Your task to perform on an android device: check google app version Image 0: 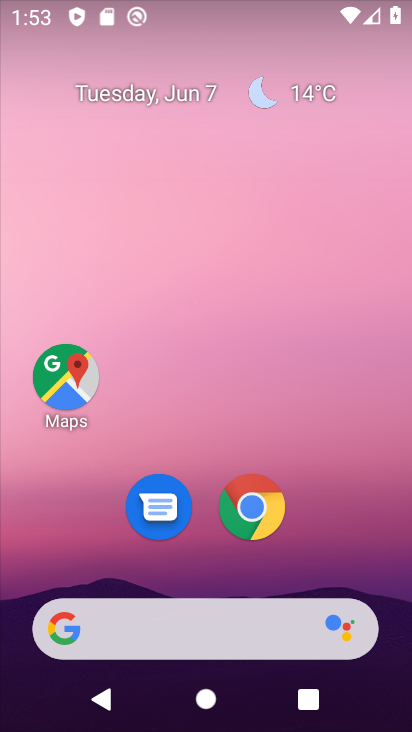
Step 0: drag from (327, 541) to (325, 101)
Your task to perform on an android device: check google app version Image 1: 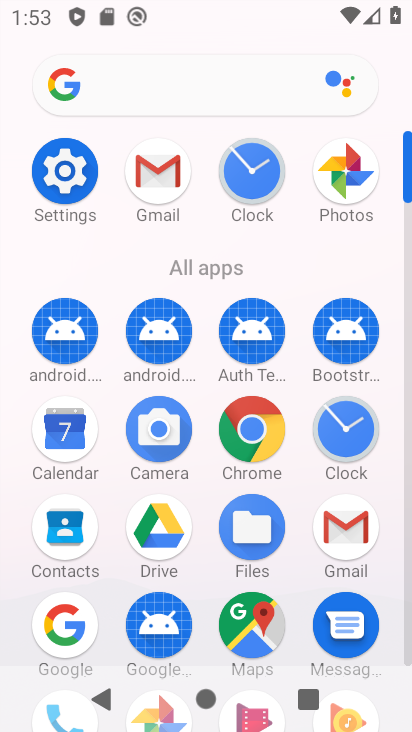
Step 1: drag from (297, 576) to (314, 104)
Your task to perform on an android device: check google app version Image 2: 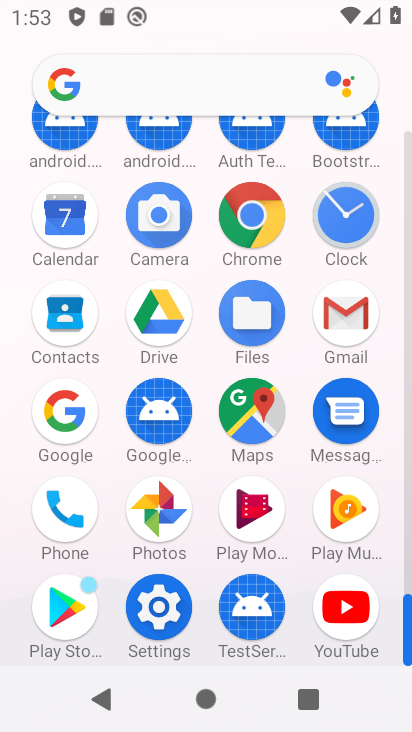
Step 2: click (66, 410)
Your task to perform on an android device: check google app version Image 3: 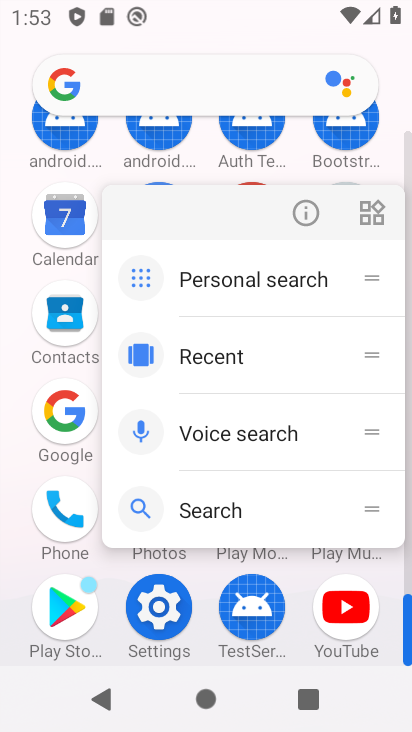
Step 3: click (300, 220)
Your task to perform on an android device: check google app version Image 4: 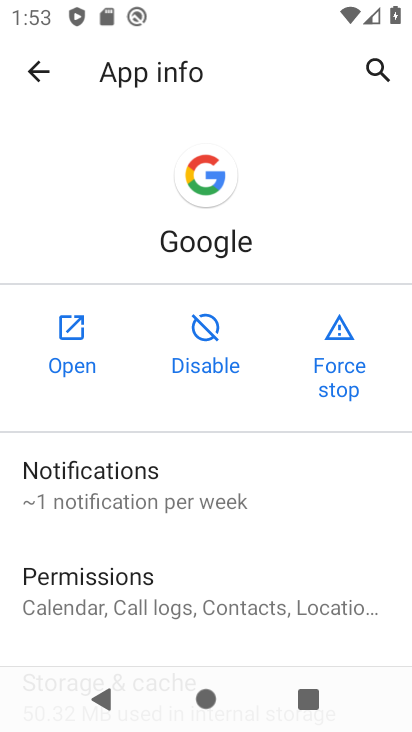
Step 4: drag from (262, 510) to (293, 43)
Your task to perform on an android device: check google app version Image 5: 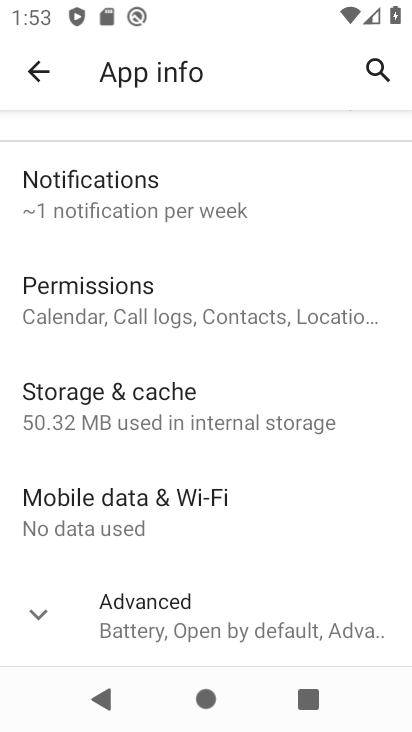
Step 5: drag from (253, 264) to (277, 85)
Your task to perform on an android device: check google app version Image 6: 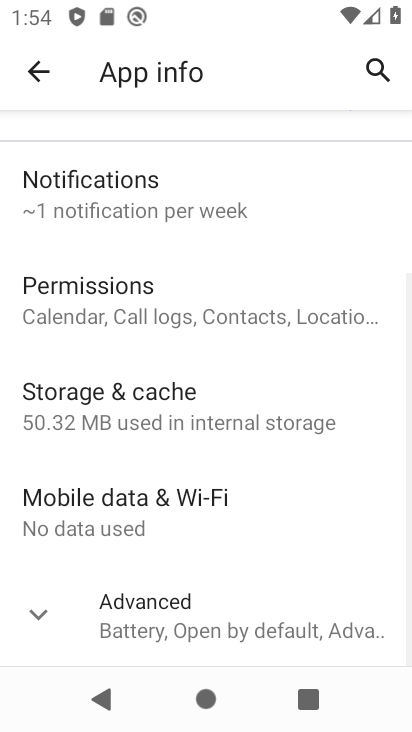
Step 6: click (148, 611)
Your task to perform on an android device: check google app version Image 7: 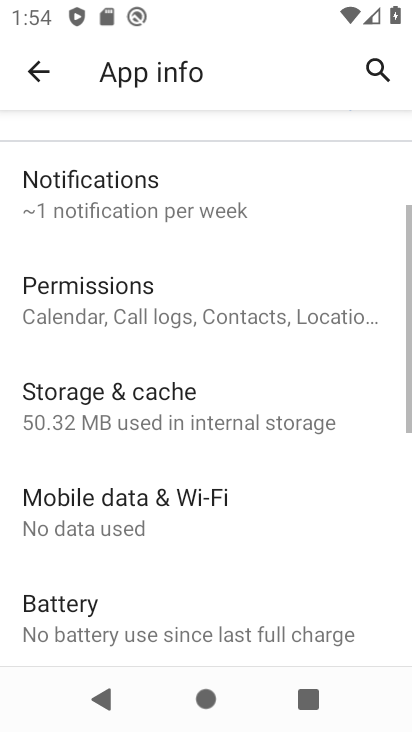
Step 7: task complete